Your task to perform on an android device: Open accessibility settings Image 0: 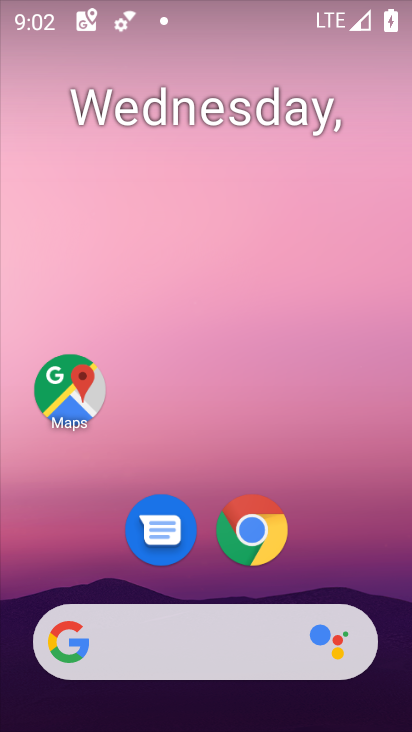
Step 0: drag from (392, 625) to (247, 41)
Your task to perform on an android device: Open accessibility settings Image 1: 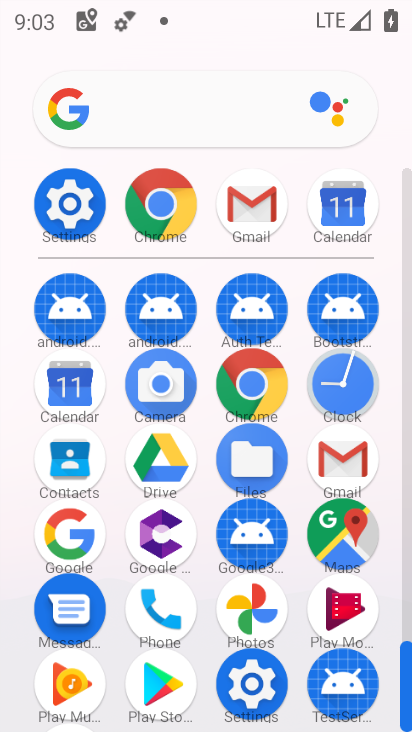
Step 1: click (256, 669)
Your task to perform on an android device: Open accessibility settings Image 2: 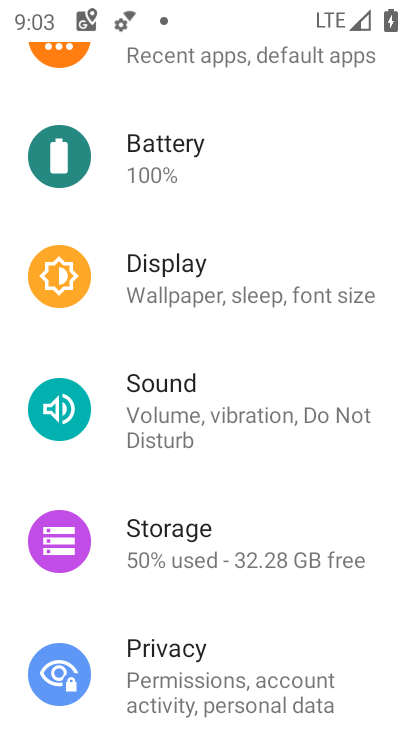
Step 2: drag from (202, 648) to (233, 317)
Your task to perform on an android device: Open accessibility settings Image 3: 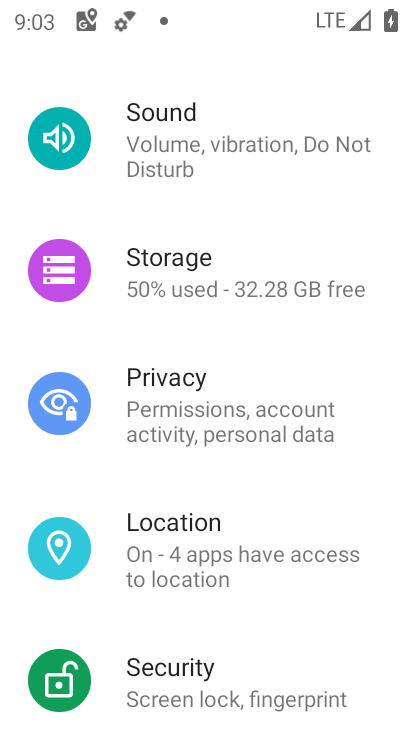
Step 3: drag from (223, 672) to (247, 175)
Your task to perform on an android device: Open accessibility settings Image 4: 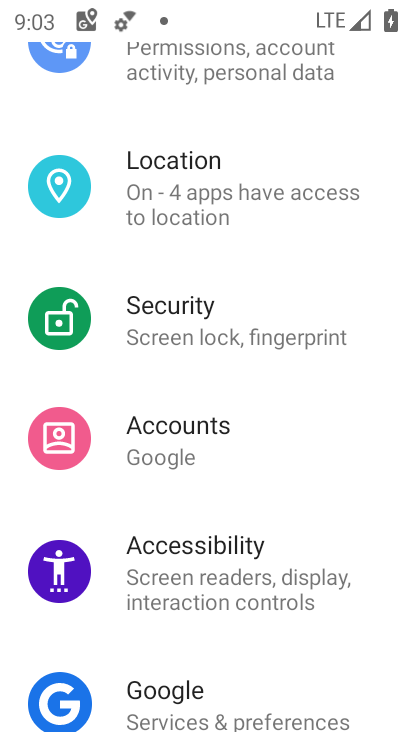
Step 4: click (273, 574)
Your task to perform on an android device: Open accessibility settings Image 5: 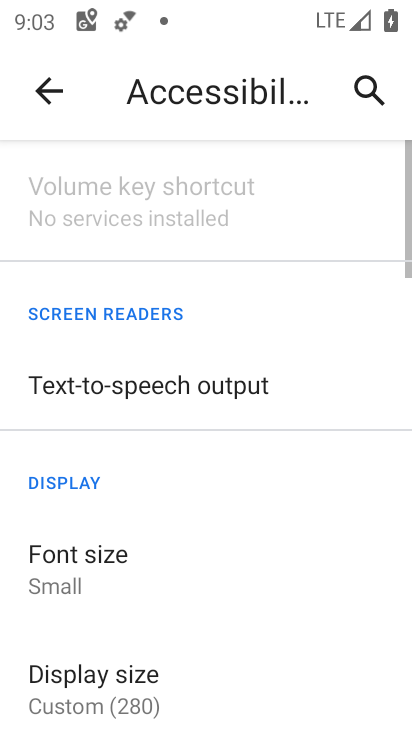
Step 5: task complete